Your task to perform on an android device: set the stopwatch Image 0: 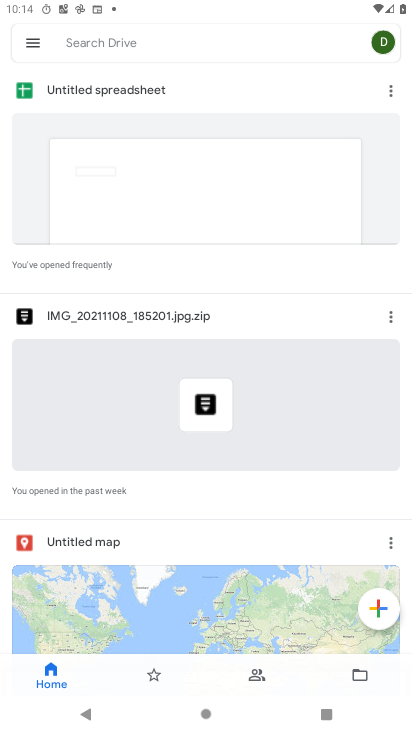
Step 0: press home button
Your task to perform on an android device: set the stopwatch Image 1: 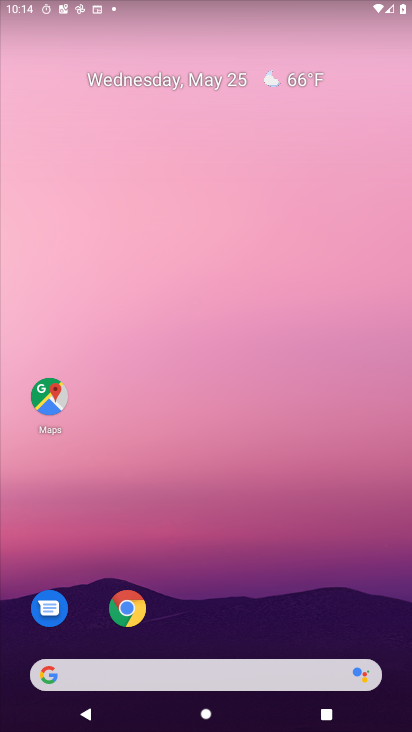
Step 1: drag from (228, 711) to (195, 123)
Your task to perform on an android device: set the stopwatch Image 2: 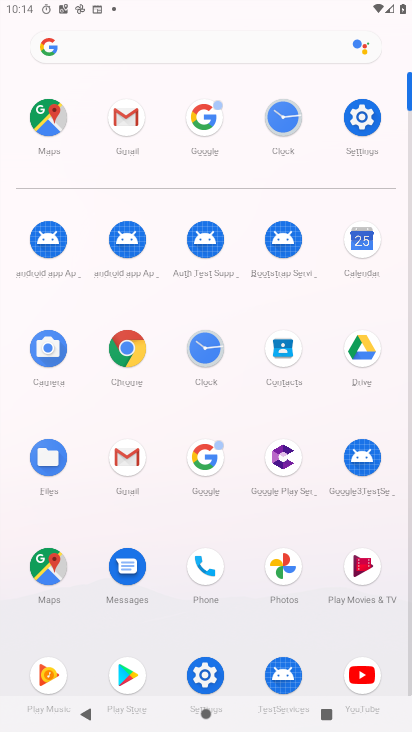
Step 2: click (206, 349)
Your task to perform on an android device: set the stopwatch Image 3: 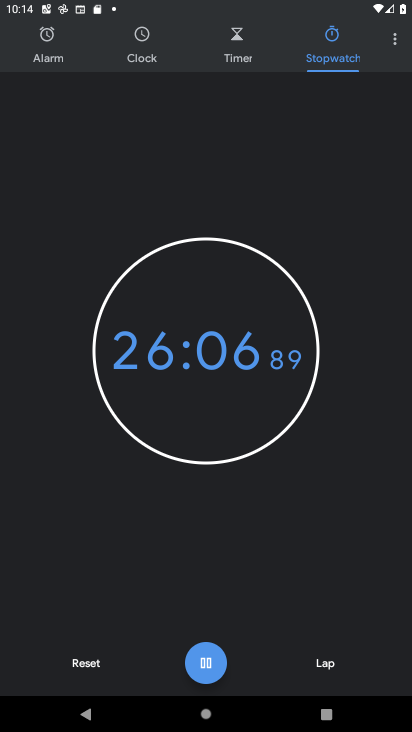
Step 3: click (214, 337)
Your task to perform on an android device: set the stopwatch Image 4: 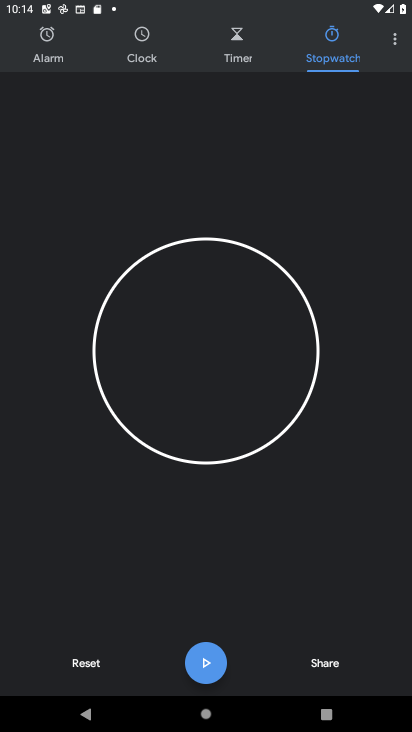
Step 4: click (86, 665)
Your task to perform on an android device: set the stopwatch Image 5: 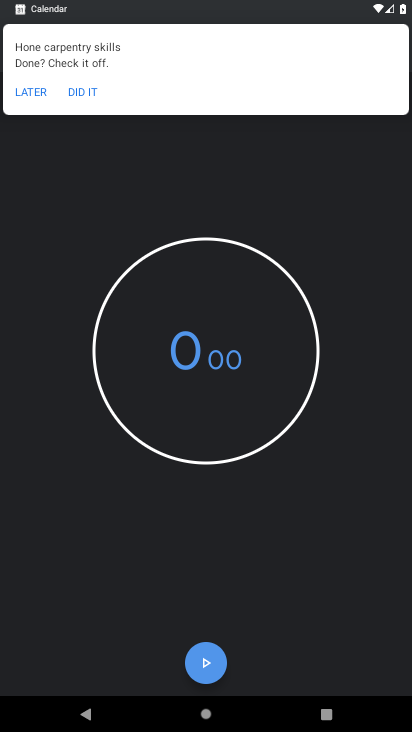
Step 5: click (233, 356)
Your task to perform on an android device: set the stopwatch Image 6: 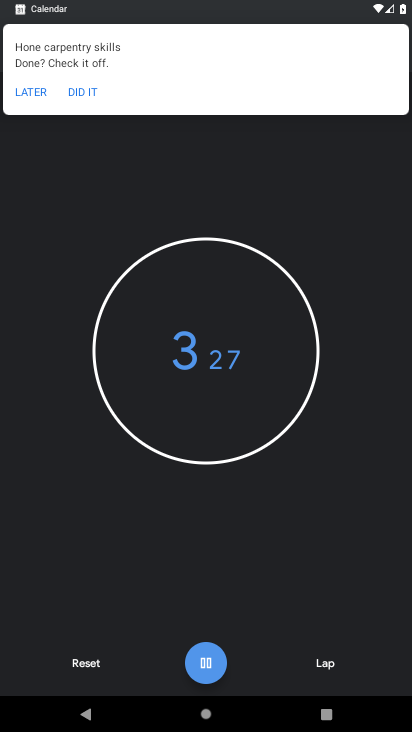
Step 6: type "88"
Your task to perform on an android device: set the stopwatch Image 7: 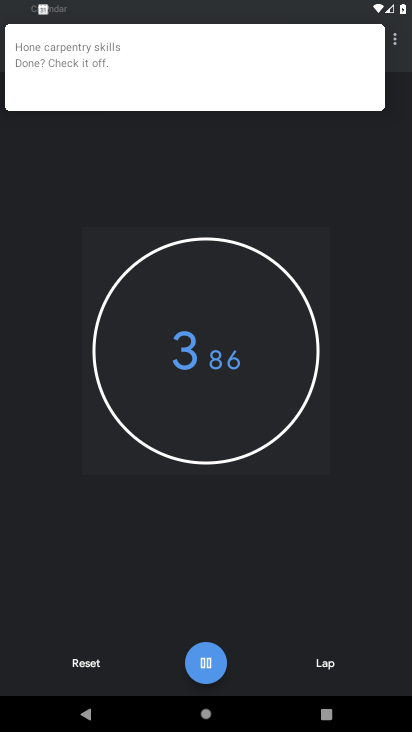
Step 7: type ""
Your task to perform on an android device: set the stopwatch Image 8: 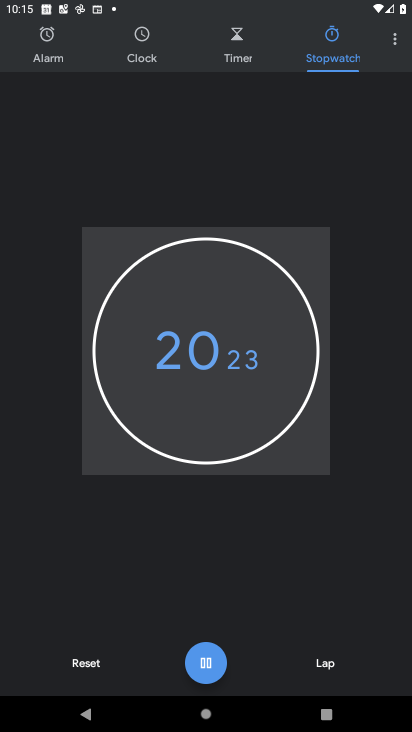
Step 8: task complete